Your task to perform on an android device: find photos in the google photos app Image 0: 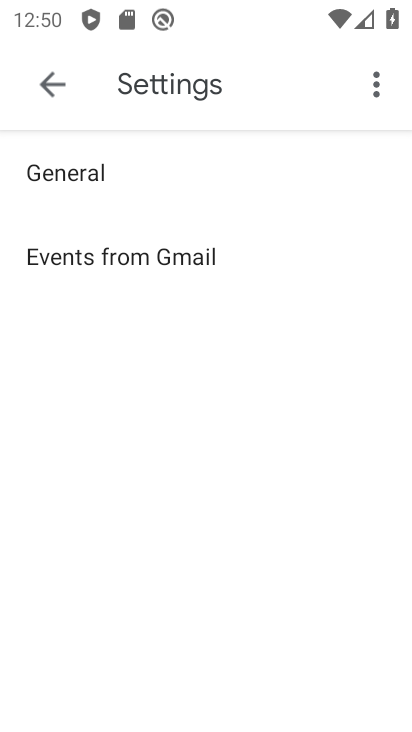
Step 0: press home button
Your task to perform on an android device: find photos in the google photos app Image 1: 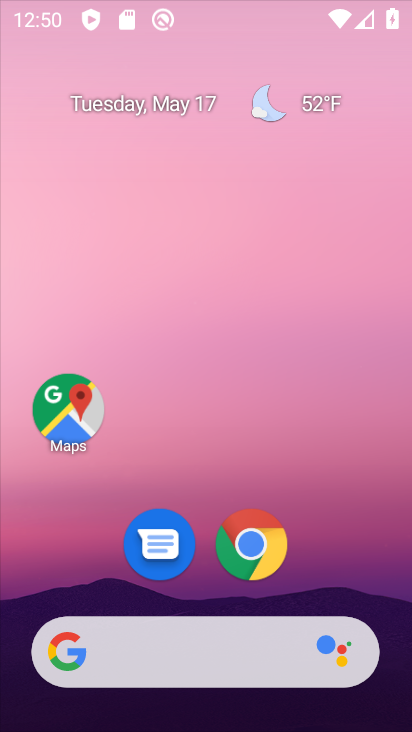
Step 1: drag from (358, 540) to (361, 180)
Your task to perform on an android device: find photos in the google photos app Image 2: 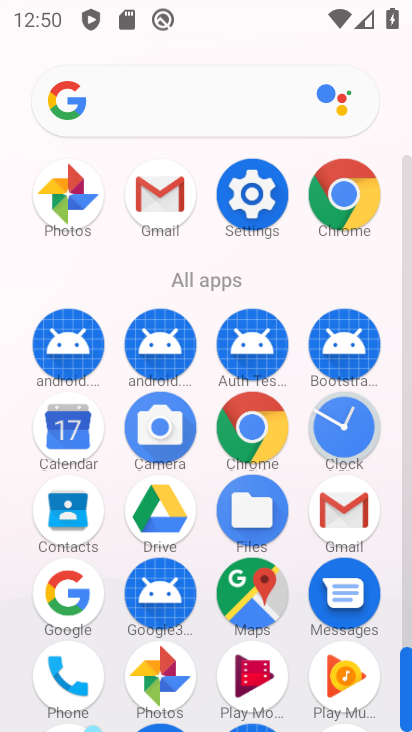
Step 2: click (157, 667)
Your task to perform on an android device: find photos in the google photos app Image 3: 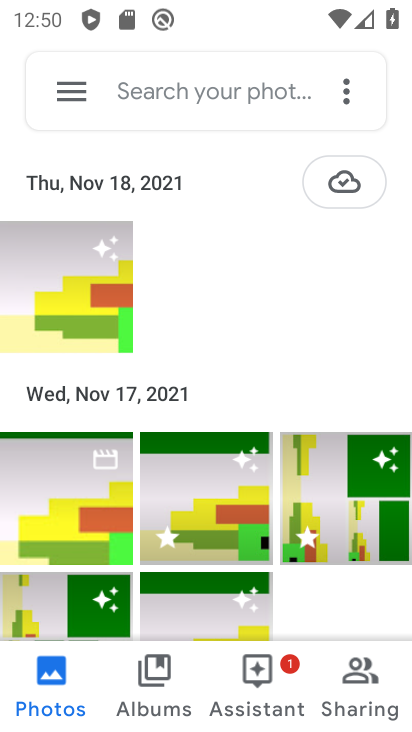
Step 3: task complete